Your task to perform on an android device: See recent photos Image 0: 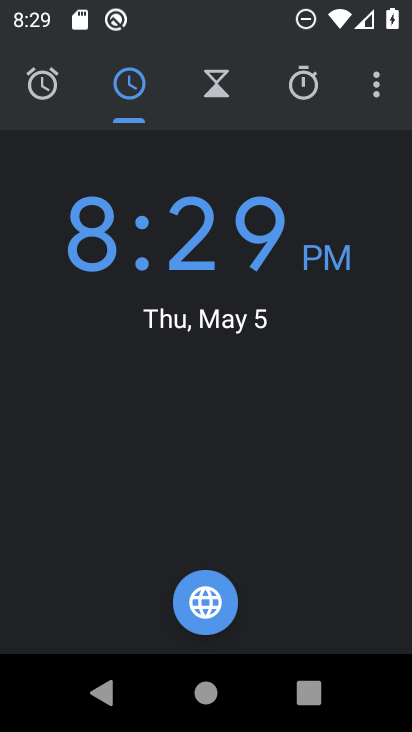
Step 0: press back button
Your task to perform on an android device: See recent photos Image 1: 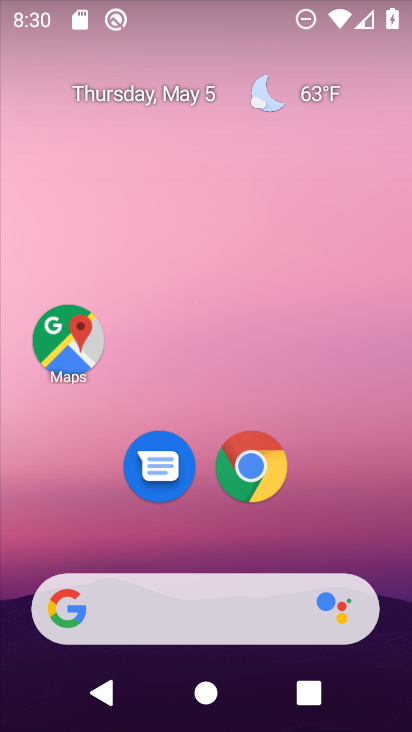
Step 1: drag from (207, 613) to (239, 65)
Your task to perform on an android device: See recent photos Image 2: 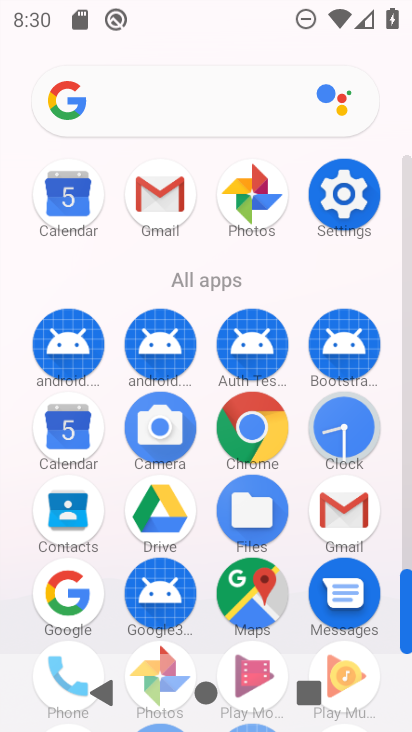
Step 2: click (272, 194)
Your task to perform on an android device: See recent photos Image 3: 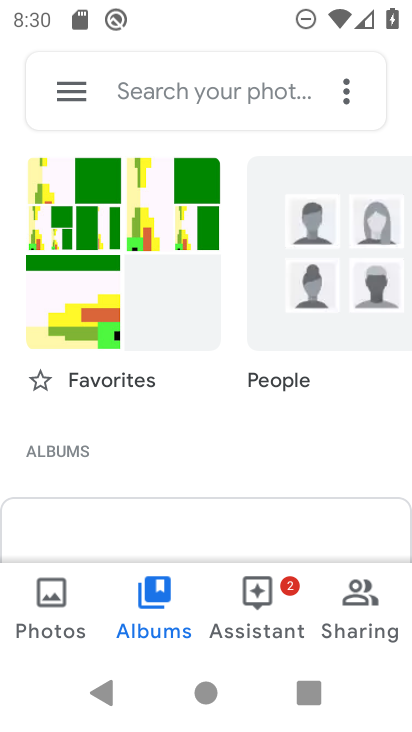
Step 3: click (64, 598)
Your task to perform on an android device: See recent photos Image 4: 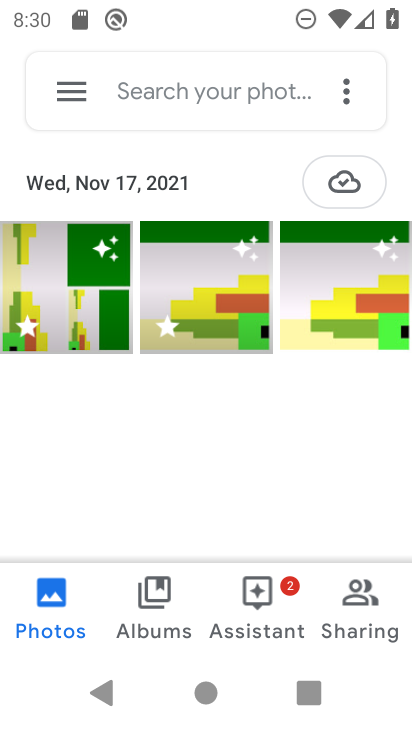
Step 4: task complete